Your task to perform on an android device: turn notification dots off Image 0: 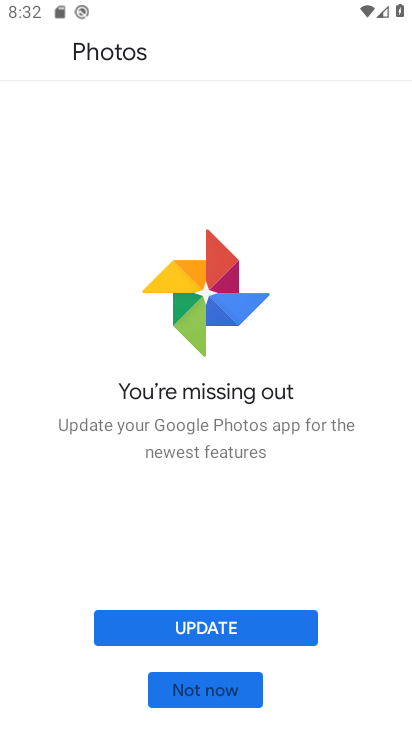
Step 0: press home button
Your task to perform on an android device: turn notification dots off Image 1: 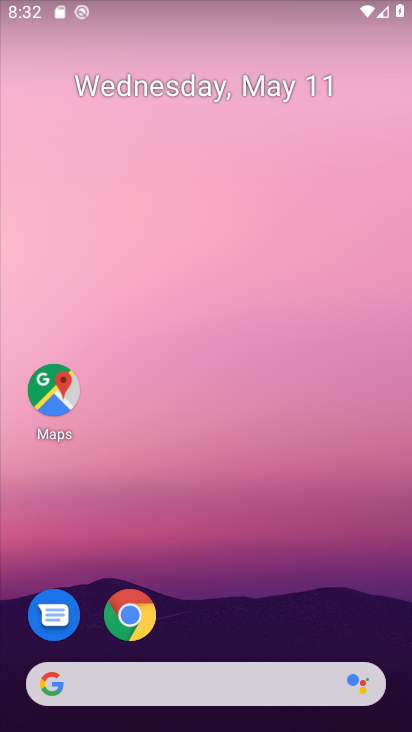
Step 1: drag from (338, 533) to (386, 1)
Your task to perform on an android device: turn notification dots off Image 2: 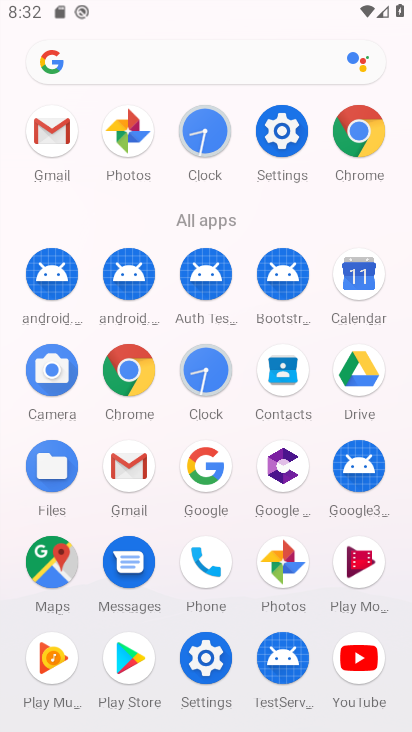
Step 2: click (291, 130)
Your task to perform on an android device: turn notification dots off Image 3: 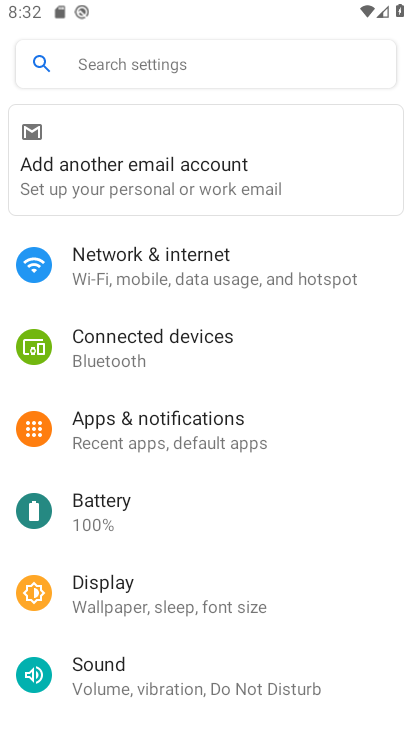
Step 3: click (192, 427)
Your task to perform on an android device: turn notification dots off Image 4: 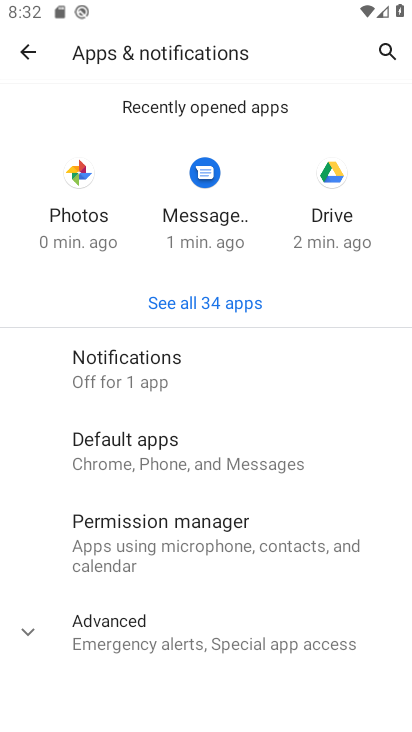
Step 4: drag from (244, 596) to (213, 230)
Your task to perform on an android device: turn notification dots off Image 5: 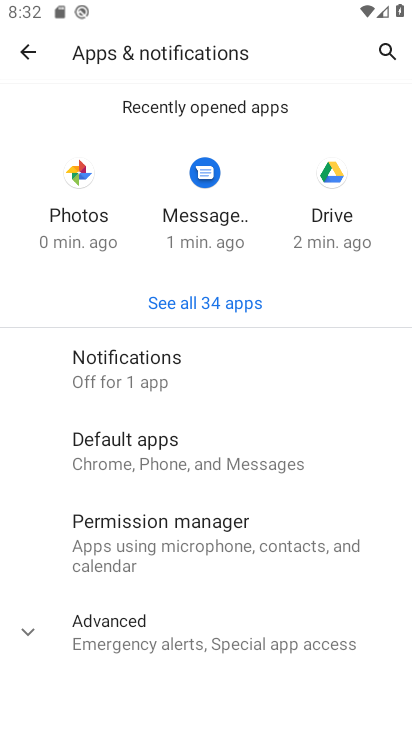
Step 5: click (183, 365)
Your task to perform on an android device: turn notification dots off Image 6: 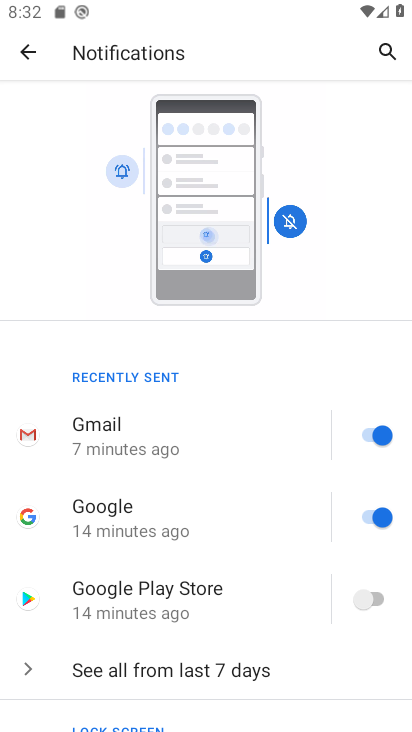
Step 6: drag from (205, 639) to (196, 333)
Your task to perform on an android device: turn notification dots off Image 7: 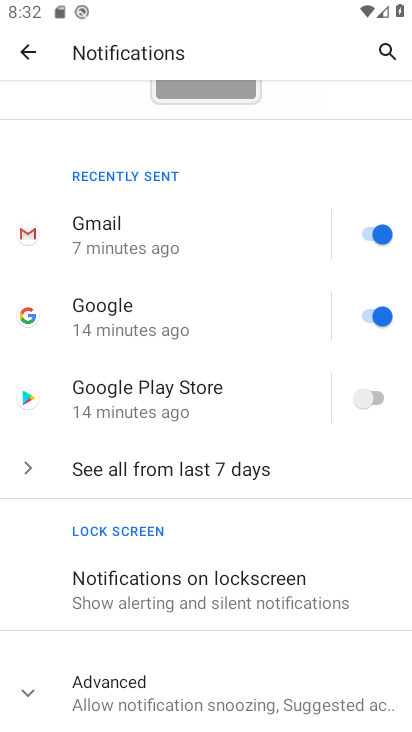
Step 7: drag from (256, 561) to (259, 287)
Your task to perform on an android device: turn notification dots off Image 8: 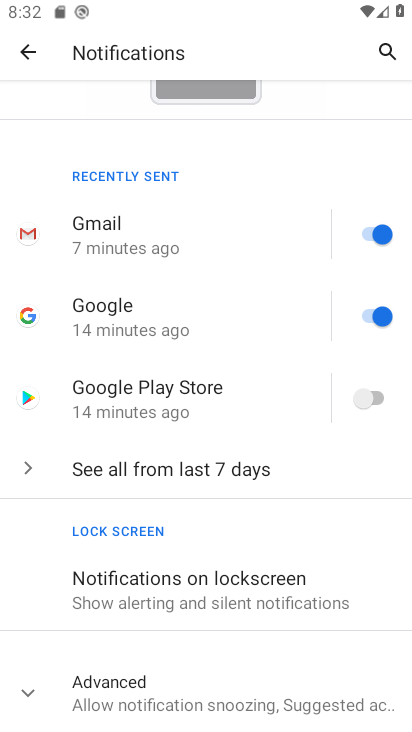
Step 8: click (191, 694)
Your task to perform on an android device: turn notification dots off Image 9: 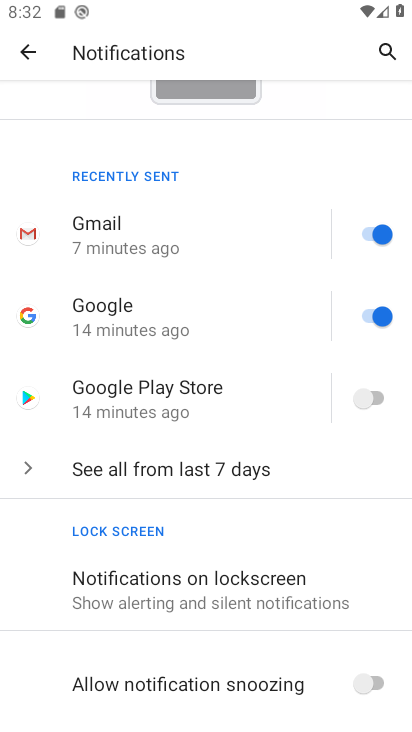
Step 9: drag from (197, 678) to (254, 324)
Your task to perform on an android device: turn notification dots off Image 10: 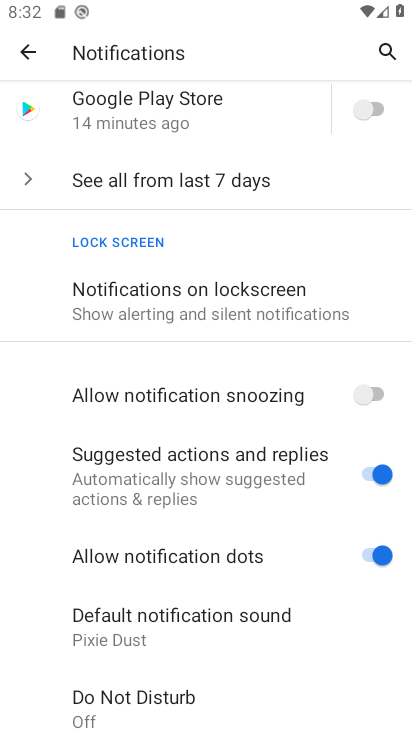
Step 10: click (376, 558)
Your task to perform on an android device: turn notification dots off Image 11: 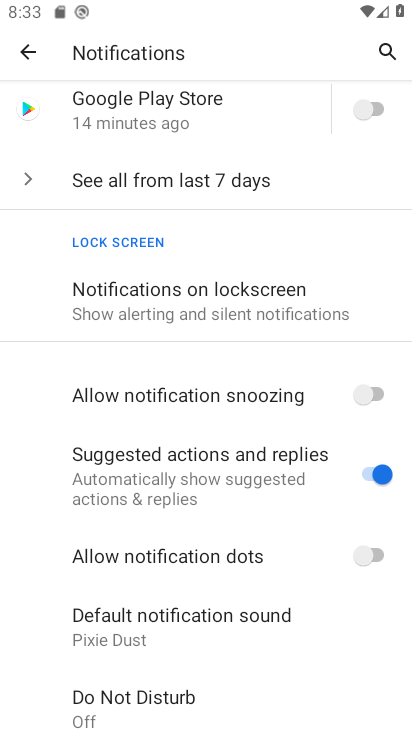
Step 11: task complete